Your task to perform on an android device: Go to Google Image 0: 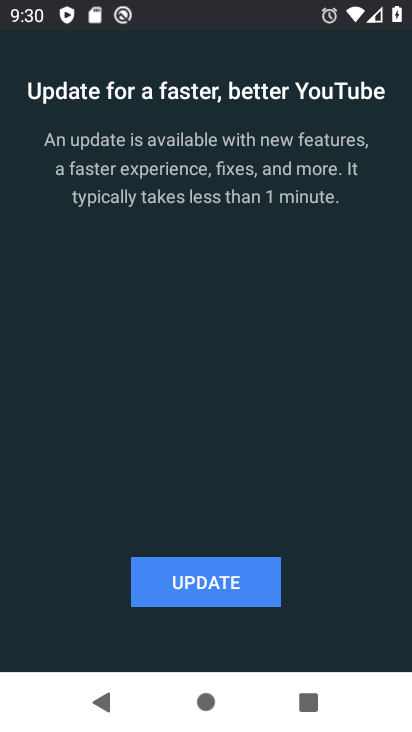
Step 0: press home button
Your task to perform on an android device: Go to Google Image 1: 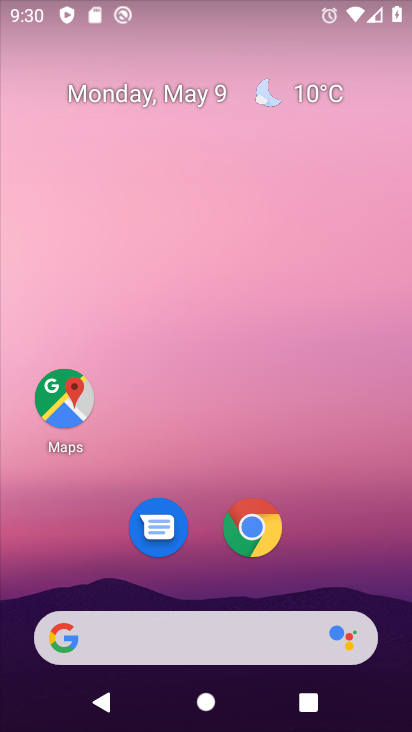
Step 1: click (248, 524)
Your task to perform on an android device: Go to Google Image 2: 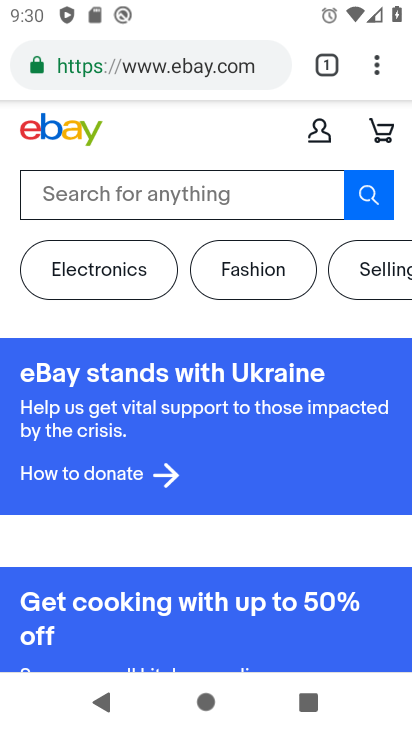
Step 2: task complete